Your task to perform on an android device: open sync settings in chrome Image 0: 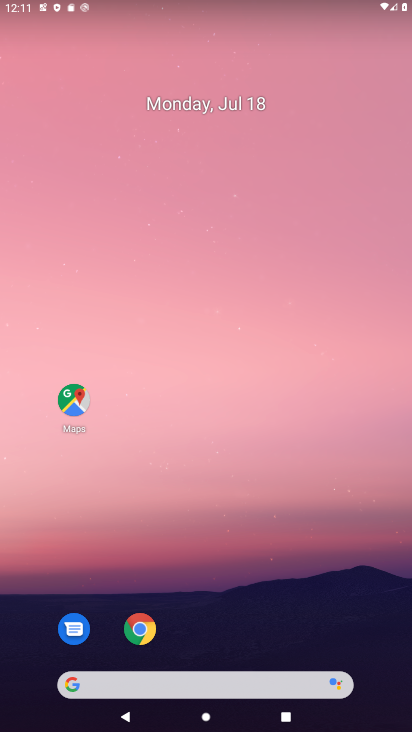
Step 0: press home button
Your task to perform on an android device: open sync settings in chrome Image 1: 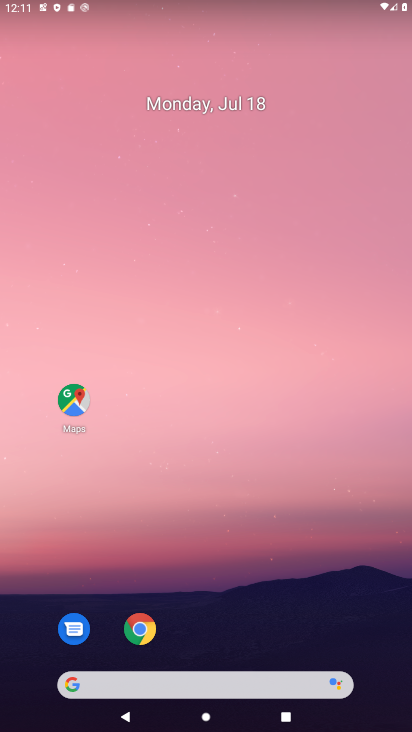
Step 1: click (136, 623)
Your task to perform on an android device: open sync settings in chrome Image 2: 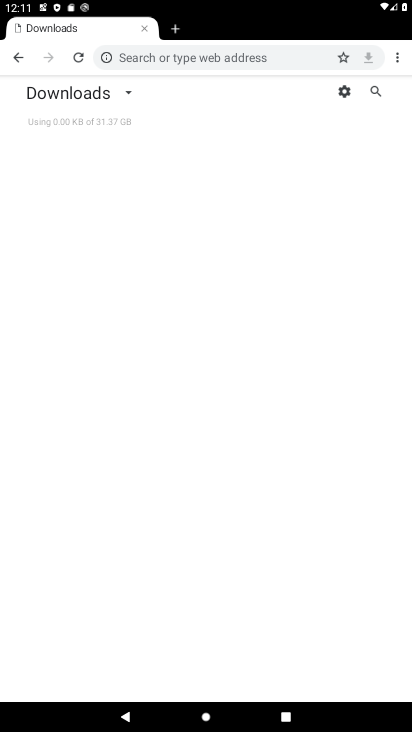
Step 2: click (174, 28)
Your task to perform on an android device: open sync settings in chrome Image 3: 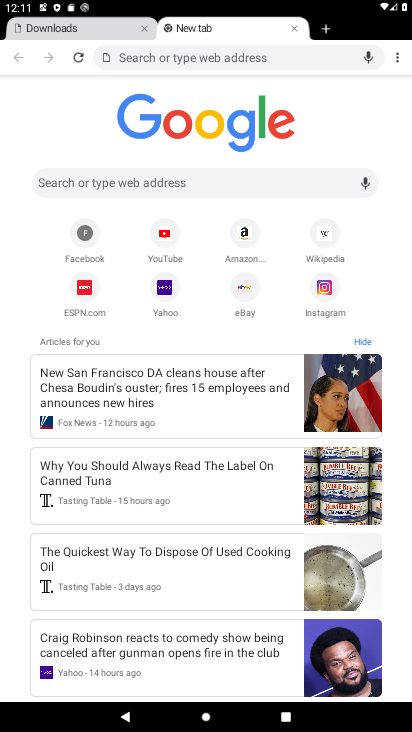
Step 3: click (399, 58)
Your task to perform on an android device: open sync settings in chrome Image 4: 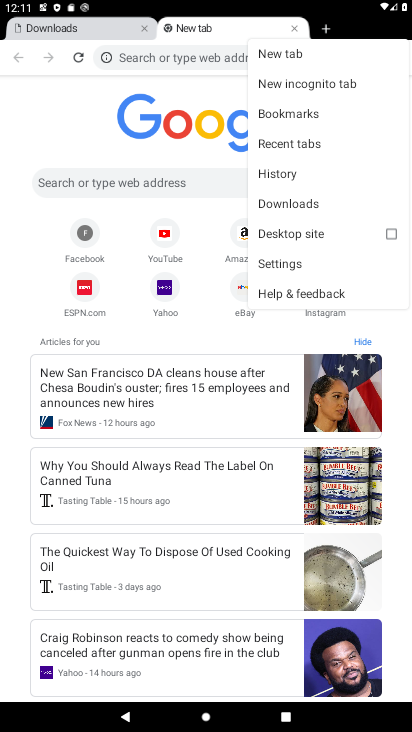
Step 4: click (307, 261)
Your task to perform on an android device: open sync settings in chrome Image 5: 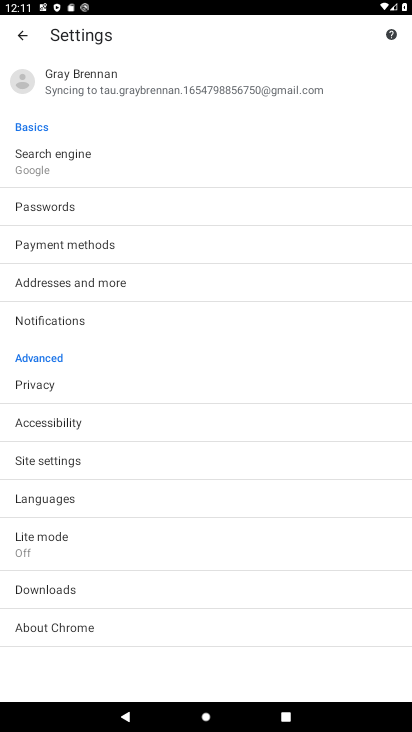
Step 5: click (130, 84)
Your task to perform on an android device: open sync settings in chrome Image 6: 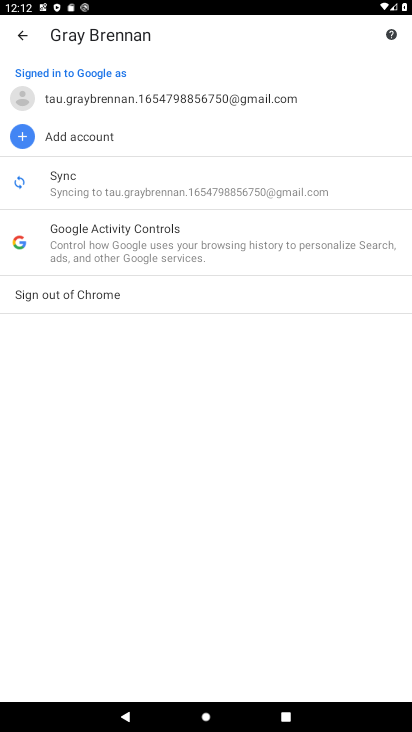
Step 6: click (91, 178)
Your task to perform on an android device: open sync settings in chrome Image 7: 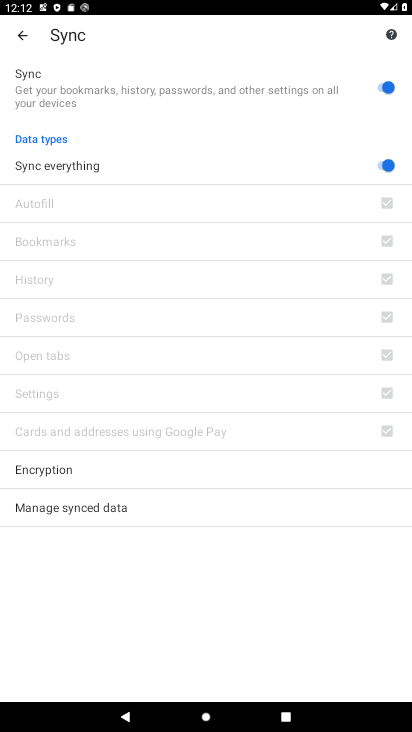
Step 7: task complete